Your task to perform on an android device: search for starred emails in the gmail app Image 0: 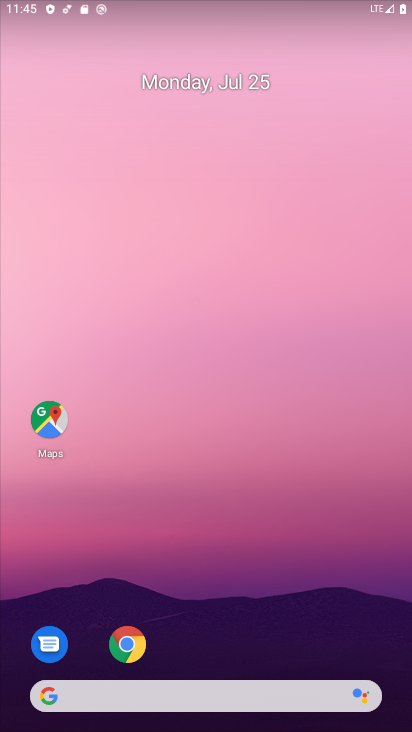
Step 0: drag from (110, 723) to (275, 111)
Your task to perform on an android device: search for starred emails in the gmail app Image 1: 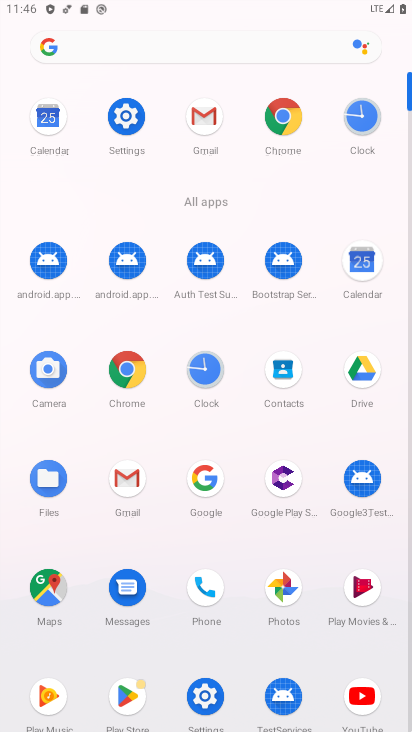
Step 1: click (192, 127)
Your task to perform on an android device: search for starred emails in the gmail app Image 2: 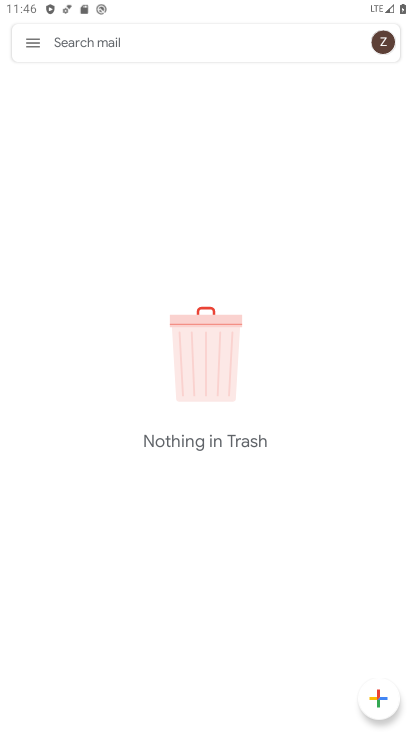
Step 2: click (34, 42)
Your task to perform on an android device: search for starred emails in the gmail app Image 3: 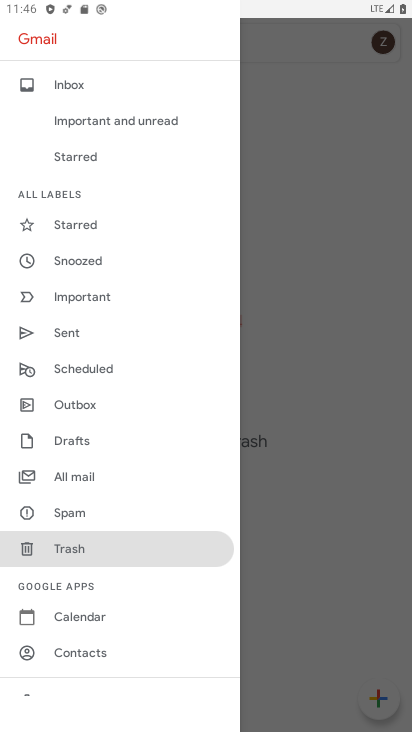
Step 3: click (87, 220)
Your task to perform on an android device: search for starred emails in the gmail app Image 4: 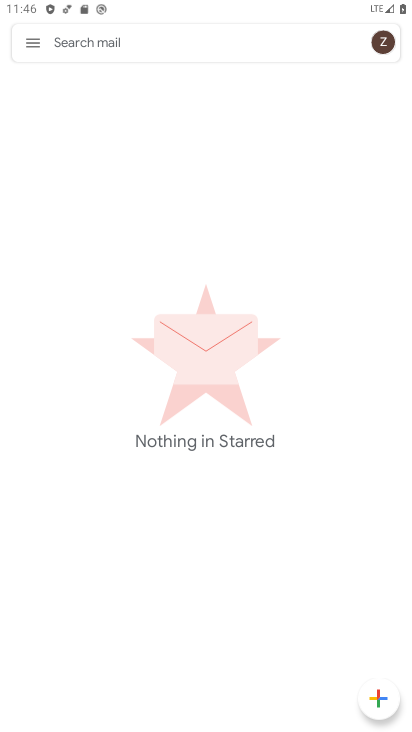
Step 4: task complete